Your task to perform on an android device: change the clock style Image 0: 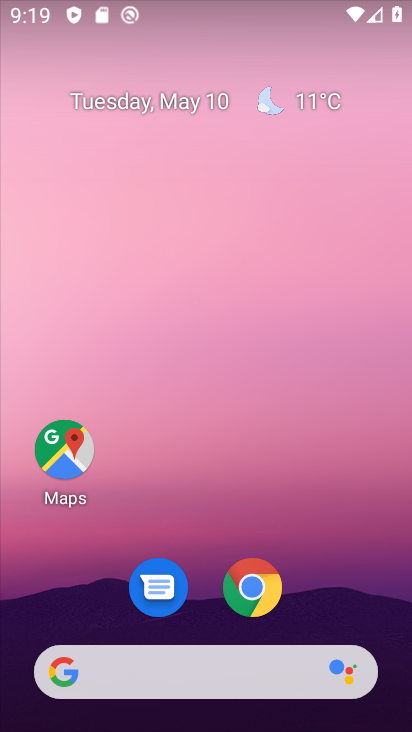
Step 0: drag from (351, 599) to (276, 199)
Your task to perform on an android device: change the clock style Image 1: 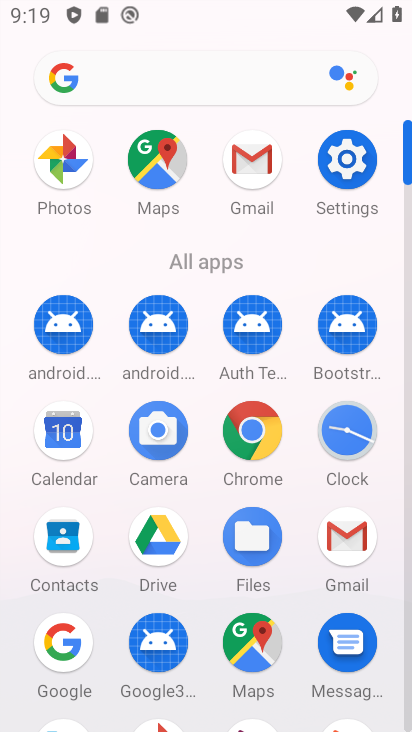
Step 1: click (348, 437)
Your task to perform on an android device: change the clock style Image 2: 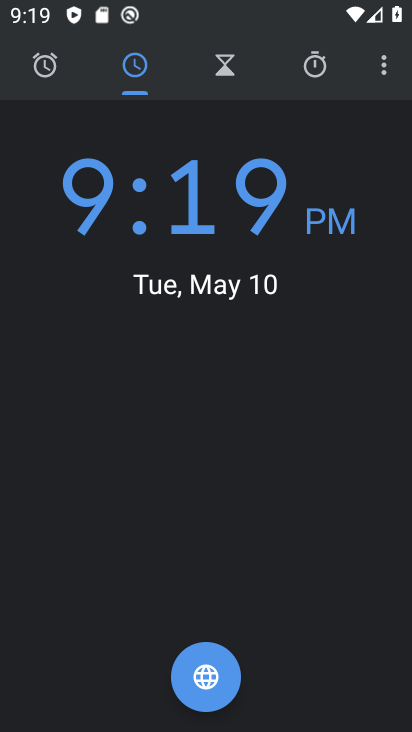
Step 2: click (383, 79)
Your task to perform on an android device: change the clock style Image 3: 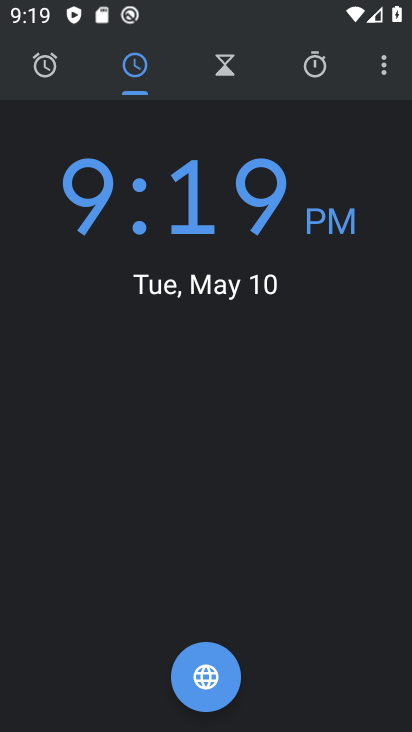
Step 3: click (381, 66)
Your task to perform on an android device: change the clock style Image 4: 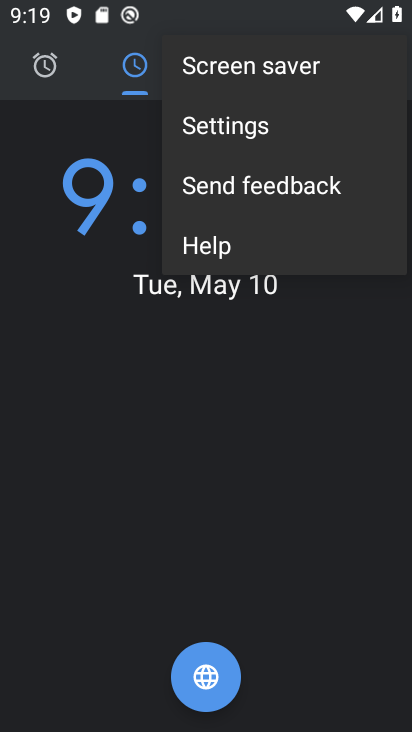
Step 4: click (284, 140)
Your task to perform on an android device: change the clock style Image 5: 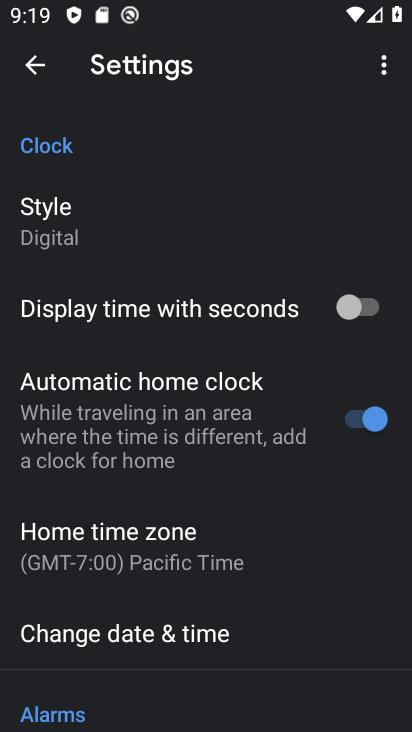
Step 5: click (80, 231)
Your task to perform on an android device: change the clock style Image 6: 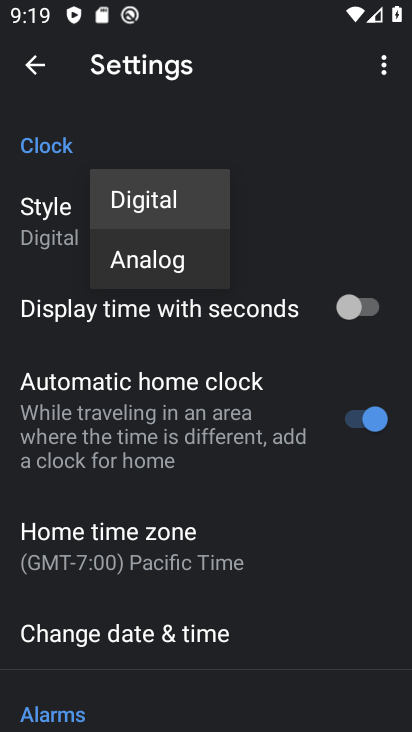
Step 6: click (144, 260)
Your task to perform on an android device: change the clock style Image 7: 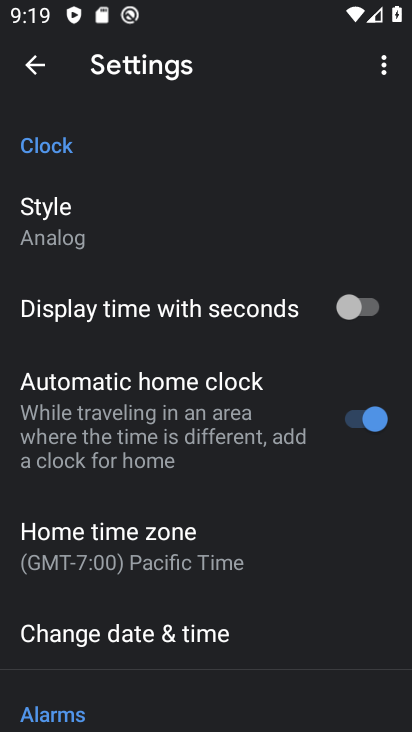
Step 7: task complete